Your task to perform on an android device: turn off location history Image 0: 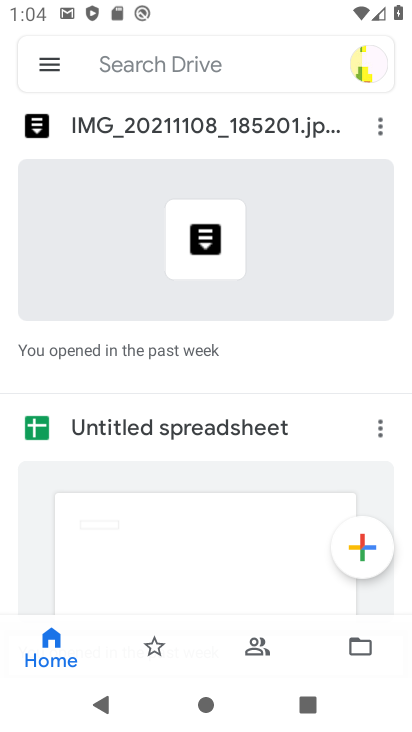
Step 0: press home button
Your task to perform on an android device: turn off location history Image 1: 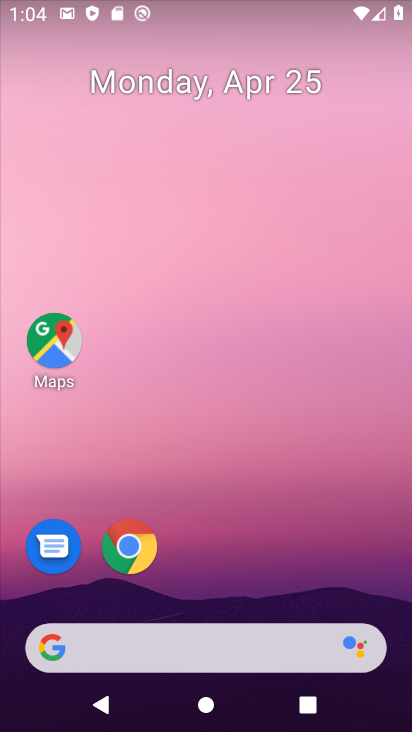
Step 1: drag from (350, 479) to (360, 38)
Your task to perform on an android device: turn off location history Image 2: 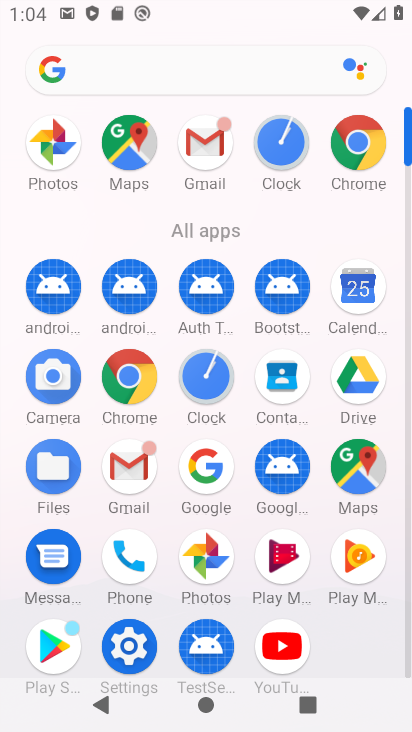
Step 2: drag from (380, 649) to (381, 363)
Your task to perform on an android device: turn off location history Image 3: 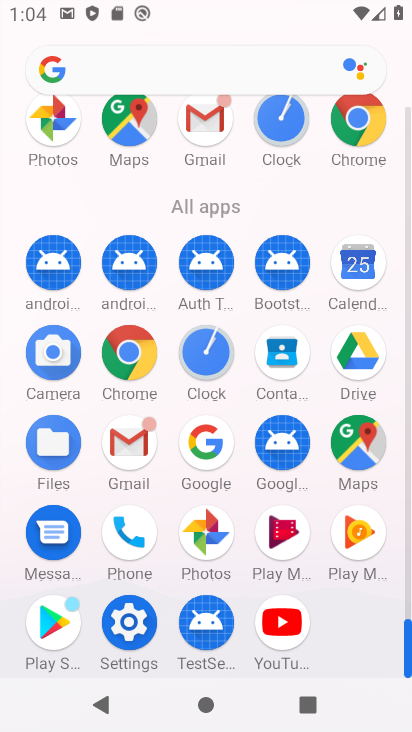
Step 3: click (129, 629)
Your task to perform on an android device: turn off location history Image 4: 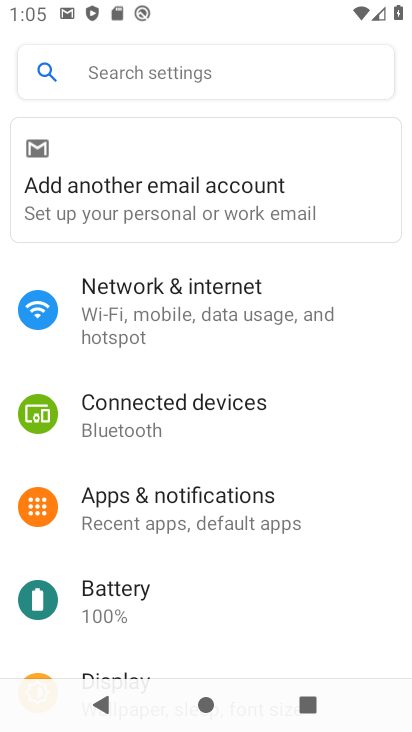
Step 4: drag from (376, 575) to (364, 354)
Your task to perform on an android device: turn off location history Image 5: 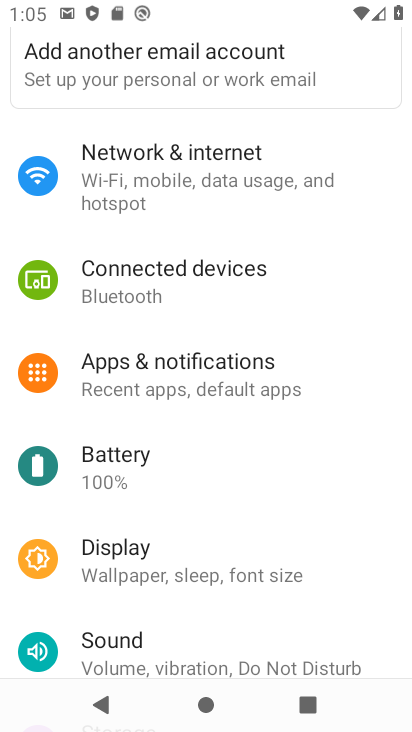
Step 5: drag from (366, 578) to (356, 441)
Your task to perform on an android device: turn off location history Image 6: 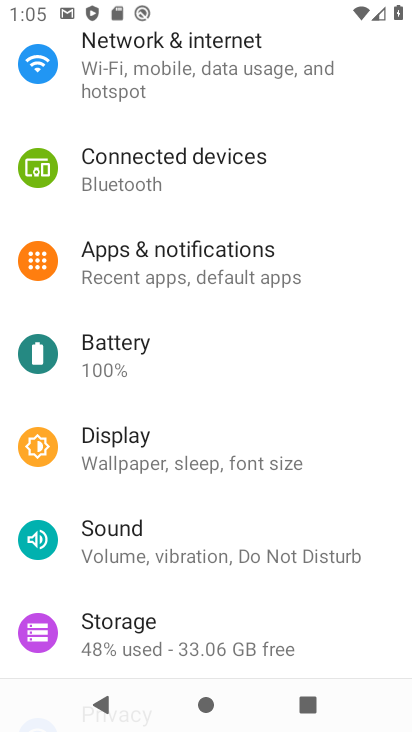
Step 6: drag from (368, 598) to (363, 387)
Your task to perform on an android device: turn off location history Image 7: 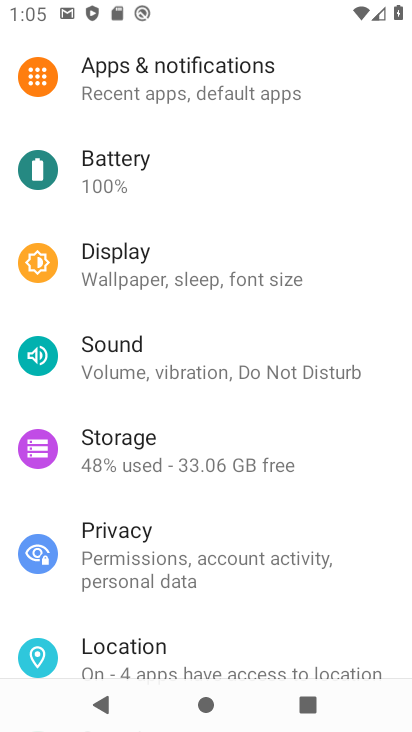
Step 7: drag from (361, 602) to (354, 426)
Your task to perform on an android device: turn off location history Image 8: 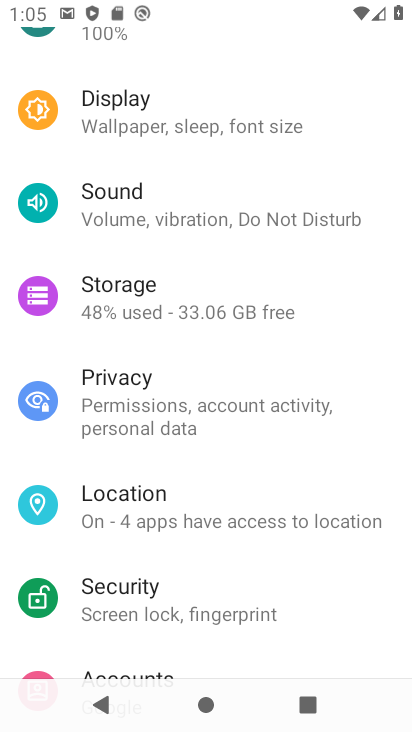
Step 8: drag from (361, 573) to (360, 379)
Your task to perform on an android device: turn off location history Image 9: 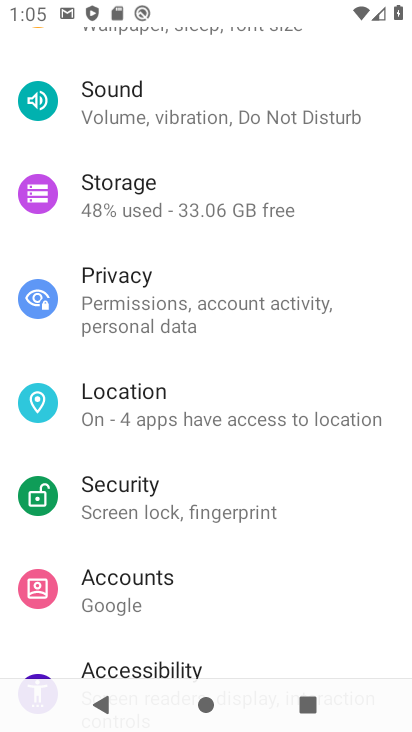
Step 9: click (312, 417)
Your task to perform on an android device: turn off location history Image 10: 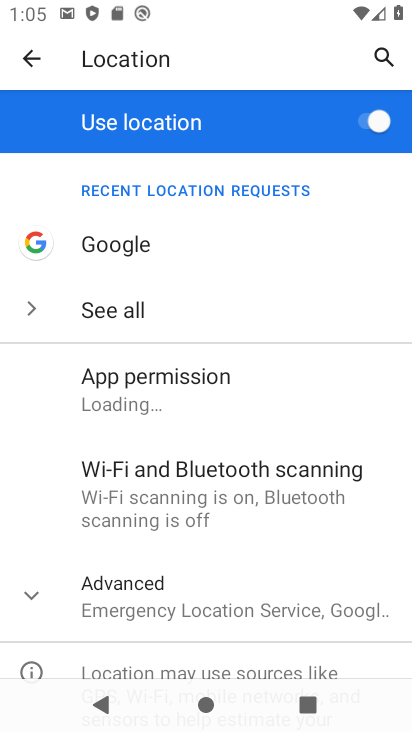
Step 10: drag from (323, 549) to (325, 363)
Your task to perform on an android device: turn off location history Image 11: 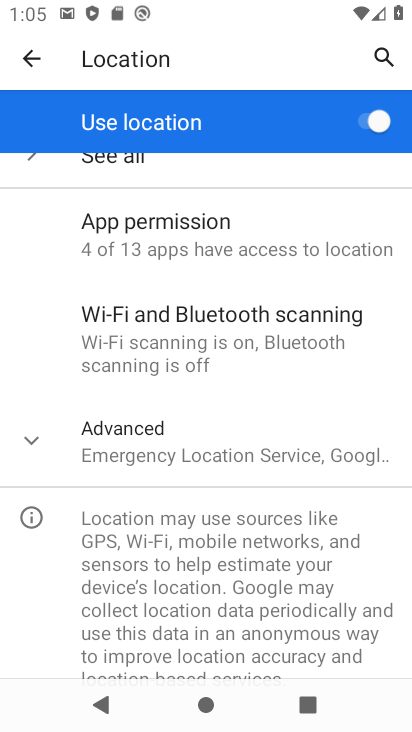
Step 11: click (275, 454)
Your task to perform on an android device: turn off location history Image 12: 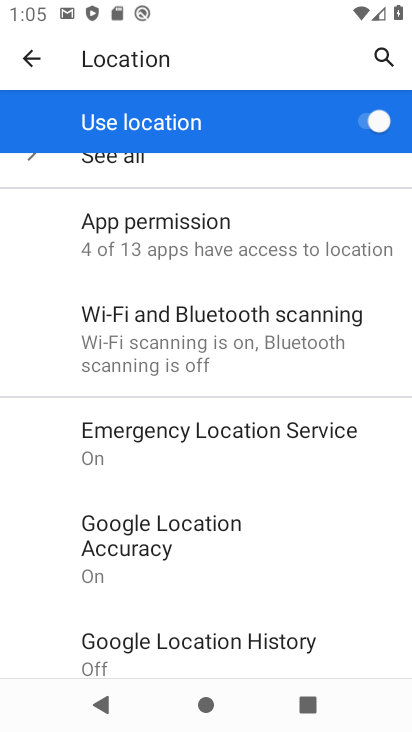
Step 12: task complete